Your task to perform on an android device: find photos in the google photos app Image 0: 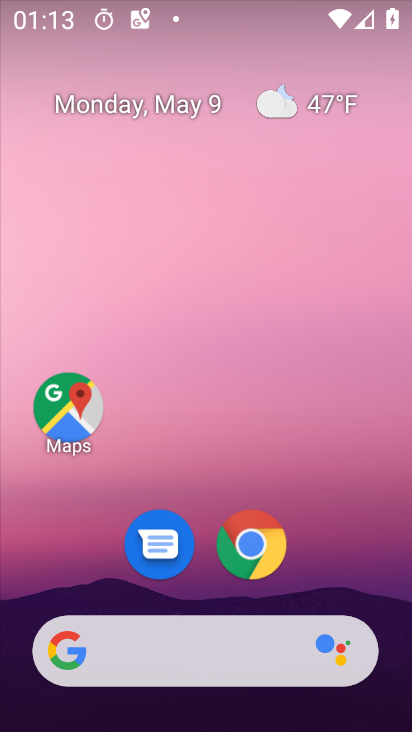
Step 0: drag from (304, 532) to (279, 90)
Your task to perform on an android device: find photos in the google photos app Image 1: 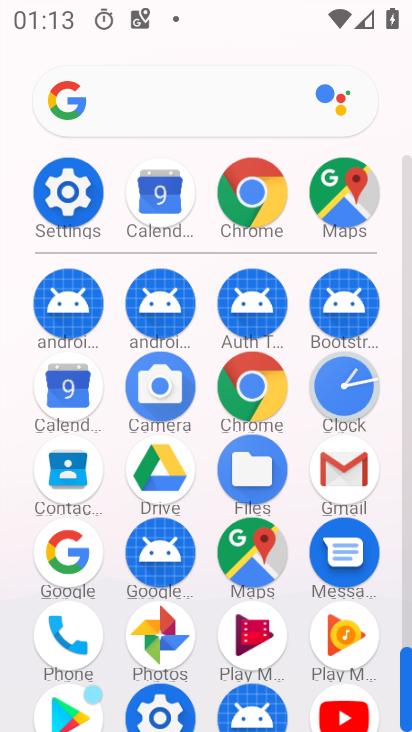
Step 1: click (171, 642)
Your task to perform on an android device: find photos in the google photos app Image 2: 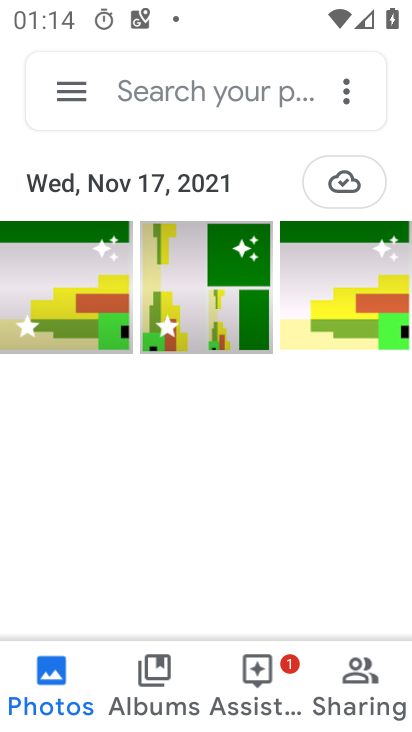
Step 2: task complete